Your task to perform on an android device: delete a single message in the gmail app Image 0: 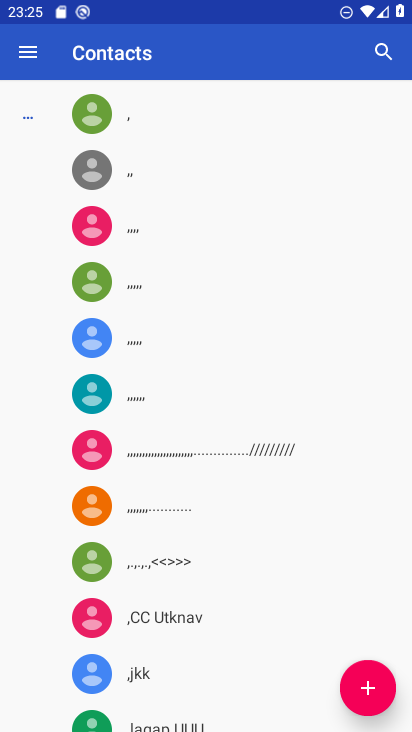
Step 0: press home button
Your task to perform on an android device: delete a single message in the gmail app Image 1: 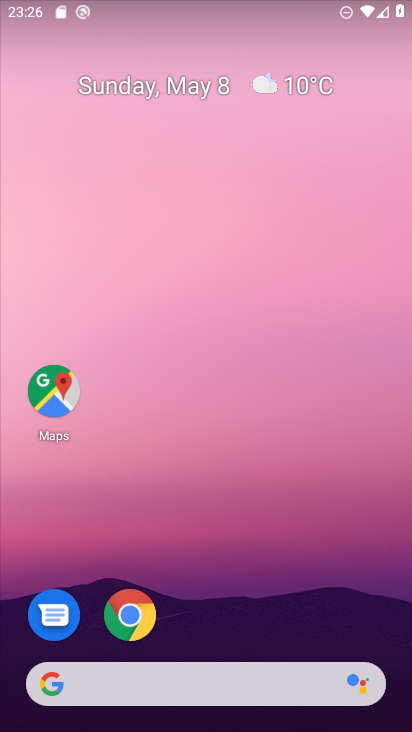
Step 1: drag from (261, 599) to (319, 59)
Your task to perform on an android device: delete a single message in the gmail app Image 2: 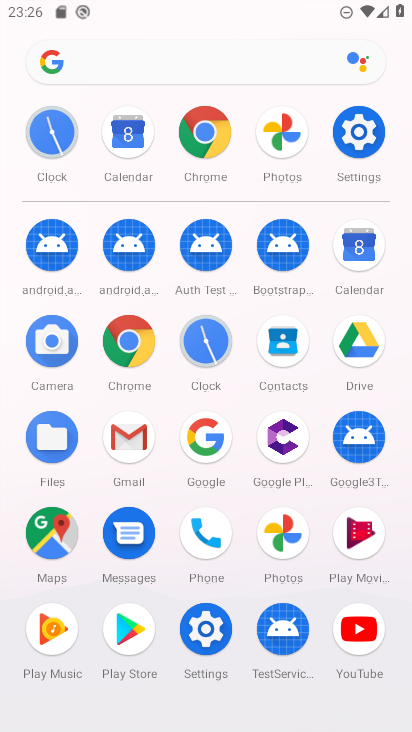
Step 2: click (139, 437)
Your task to perform on an android device: delete a single message in the gmail app Image 3: 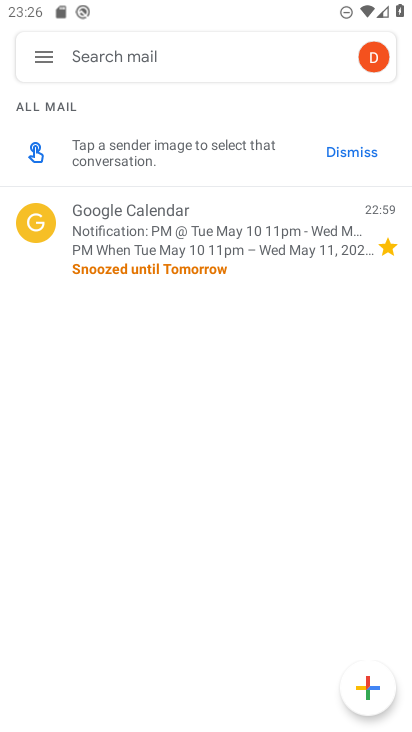
Step 3: click (43, 46)
Your task to perform on an android device: delete a single message in the gmail app Image 4: 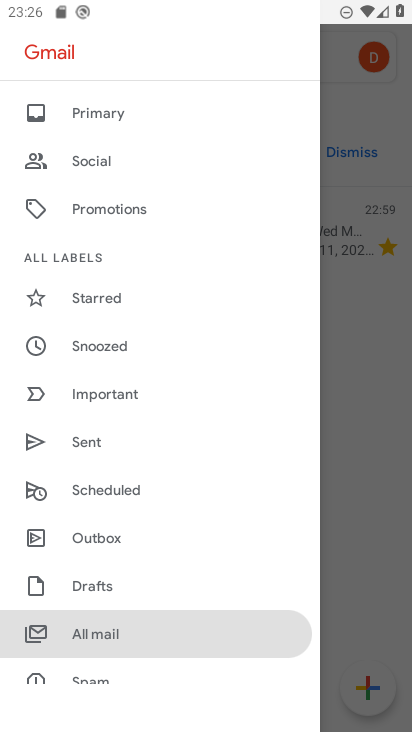
Step 4: click (342, 441)
Your task to perform on an android device: delete a single message in the gmail app Image 5: 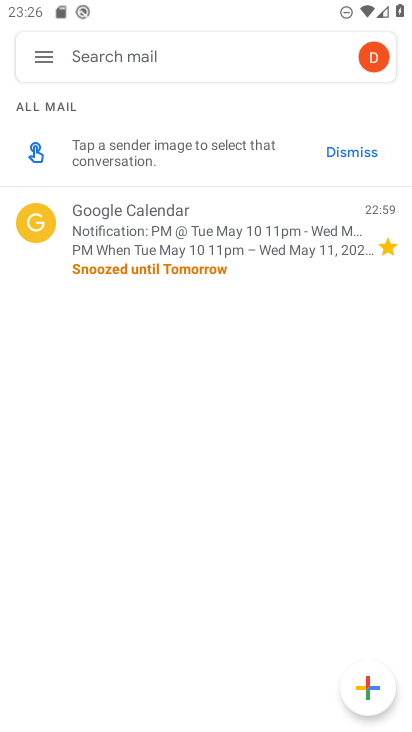
Step 5: click (371, 372)
Your task to perform on an android device: delete a single message in the gmail app Image 6: 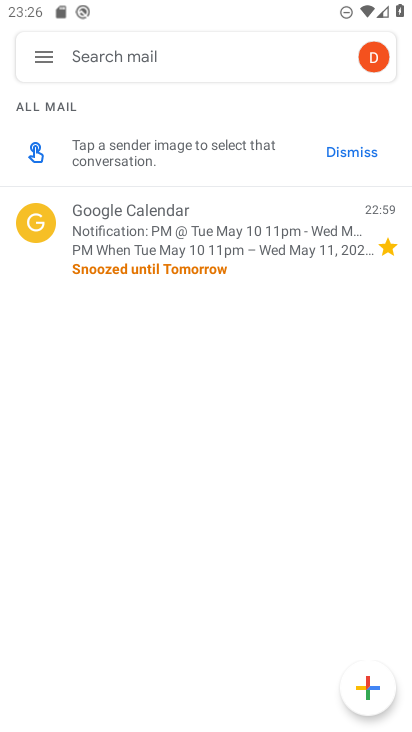
Step 6: click (290, 249)
Your task to perform on an android device: delete a single message in the gmail app Image 7: 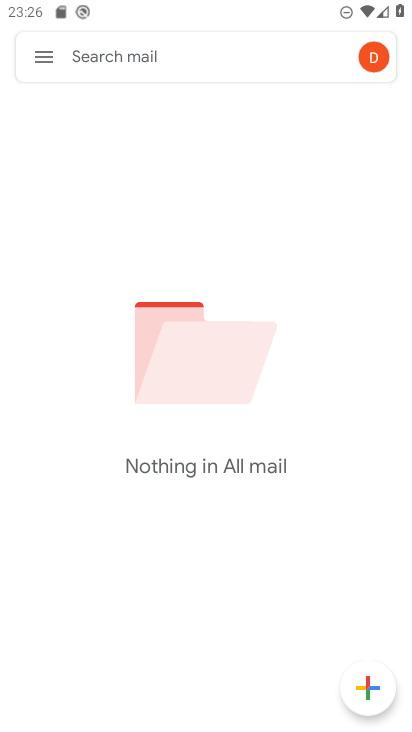
Step 7: task complete